Your task to perform on an android device: Go to Wikipedia Image 0: 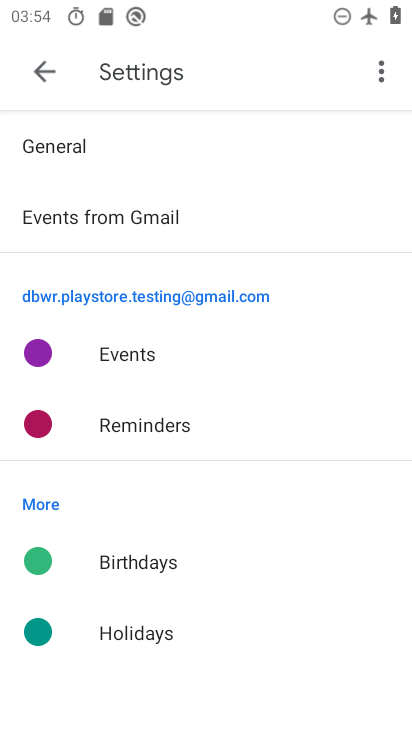
Step 0: press home button
Your task to perform on an android device: Go to Wikipedia Image 1: 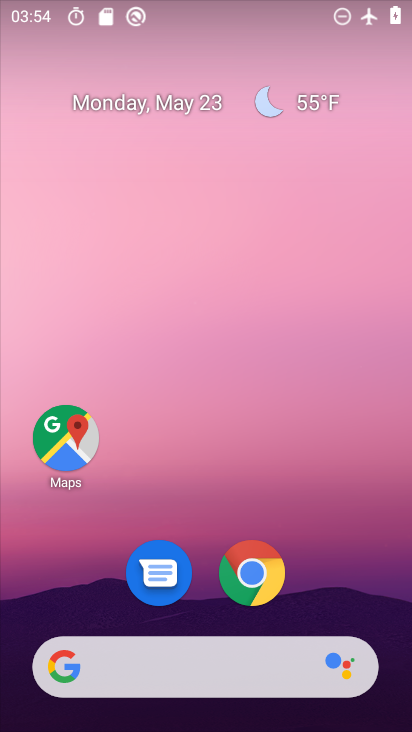
Step 1: click (258, 573)
Your task to perform on an android device: Go to Wikipedia Image 2: 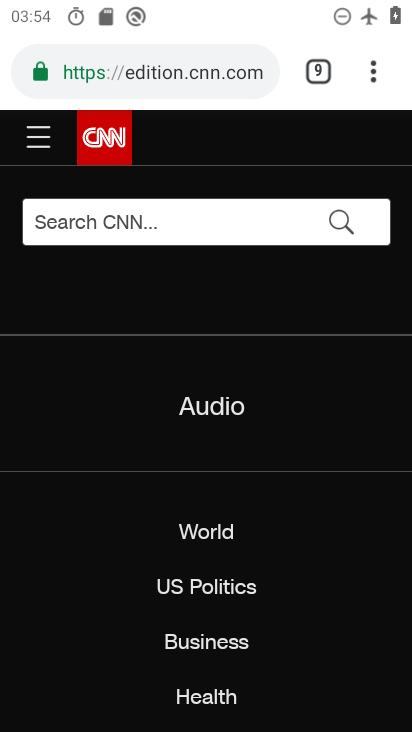
Step 2: click (313, 70)
Your task to perform on an android device: Go to Wikipedia Image 3: 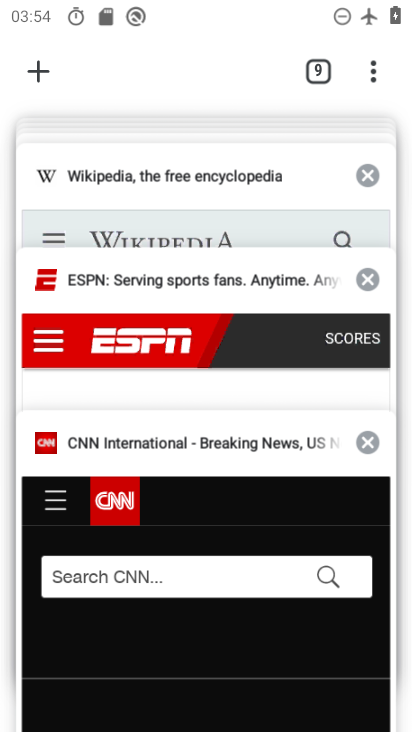
Step 3: click (205, 174)
Your task to perform on an android device: Go to Wikipedia Image 4: 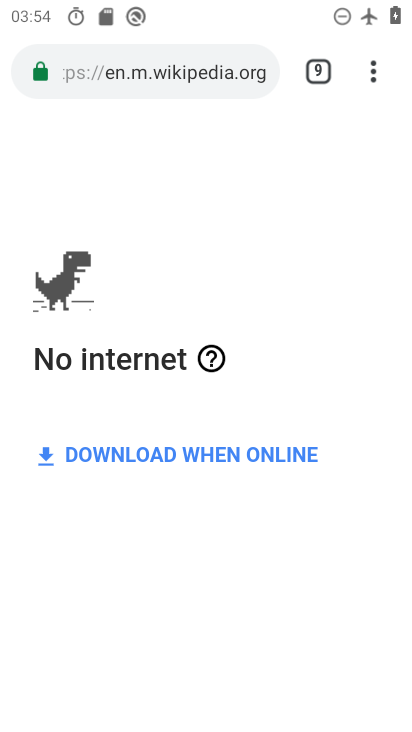
Step 4: task complete